Your task to perform on an android device: What's on my calendar tomorrow? Image 0: 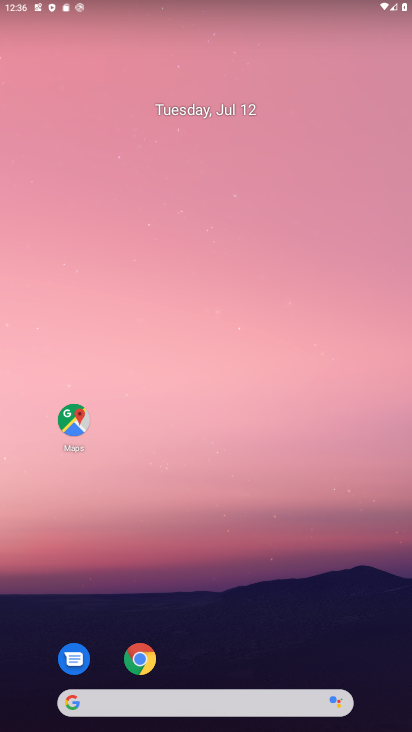
Step 0: drag from (251, 727) to (251, 67)
Your task to perform on an android device: What's on my calendar tomorrow? Image 1: 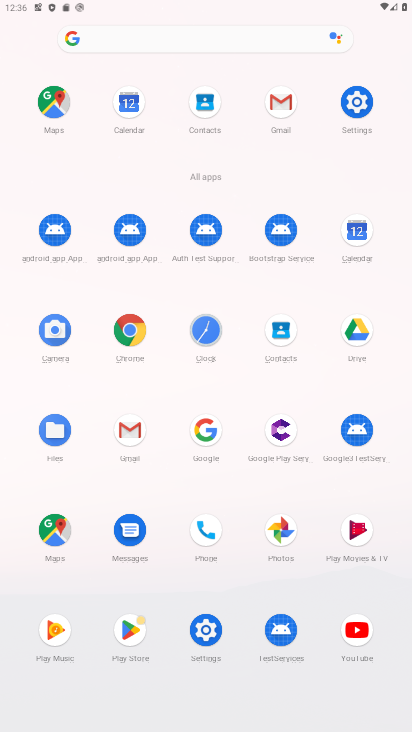
Step 1: click (356, 234)
Your task to perform on an android device: What's on my calendar tomorrow? Image 2: 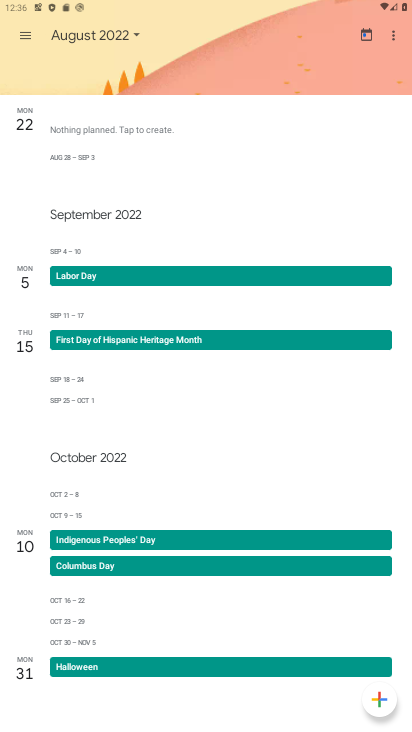
Step 2: click (135, 32)
Your task to perform on an android device: What's on my calendar tomorrow? Image 3: 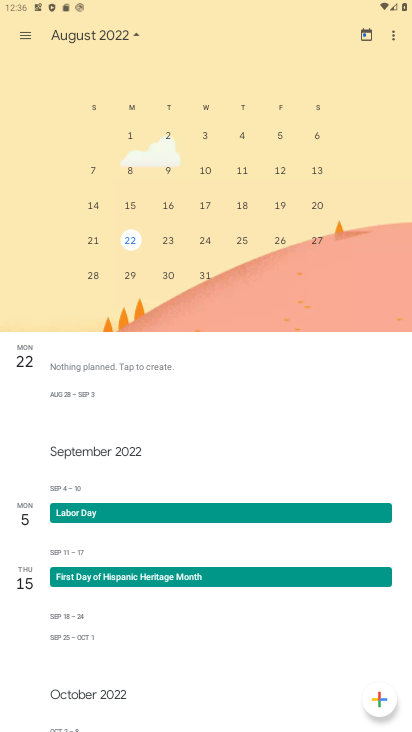
Step 3: drag from (80, 205) to (357, 204)
Your task to perform on an android device: What's on my calendar tomorrow? Image 4: 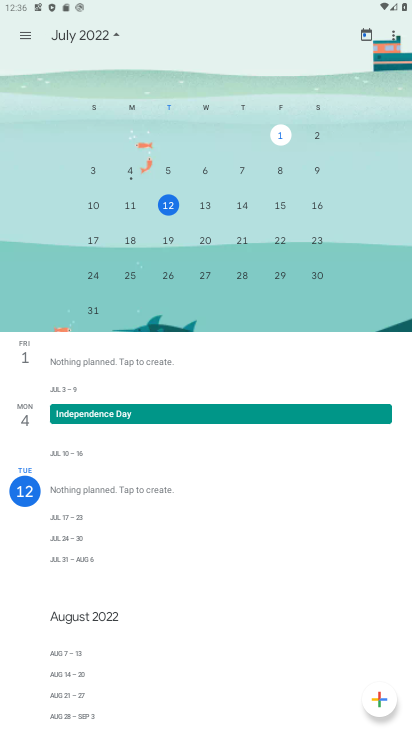
Step 4: click (201, 203)
Your task to perform on an android device: What's on my calendar tomorrow? Image 5: 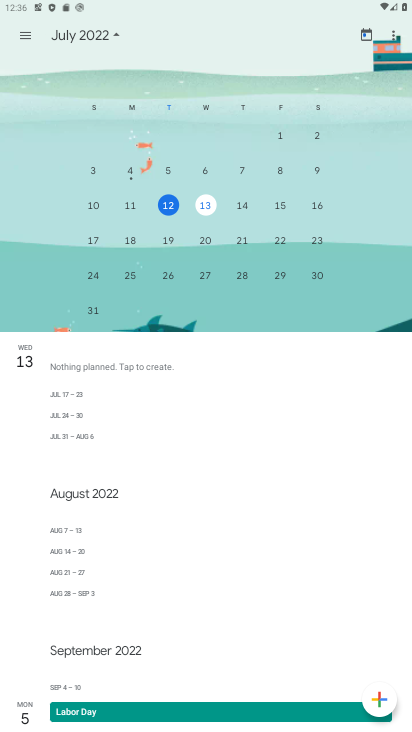
Step 5: click (206, 208)
Your task to perform on an android device: What's on my calendar tomorrow? Image 6: 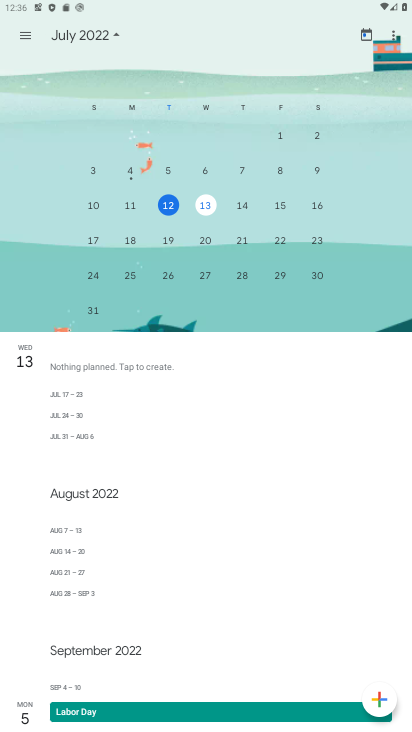
Step 6: click (204, 208)
Your task to perform on an android device: What's on my calendar tomorrow? Image 7: 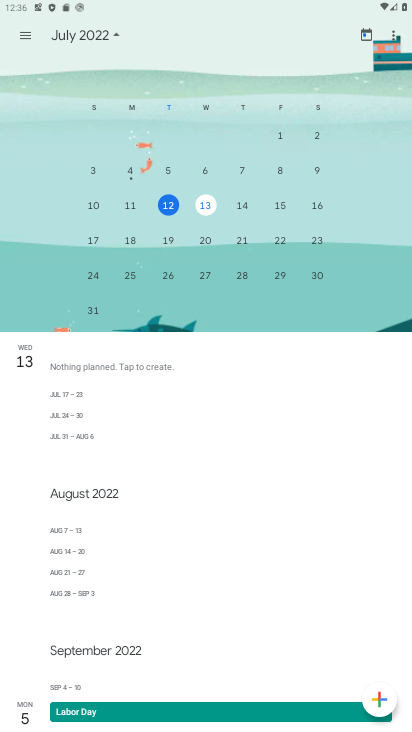
Step 7: task complete